Your task to perform on an android device: Open Google Maps Image 0: 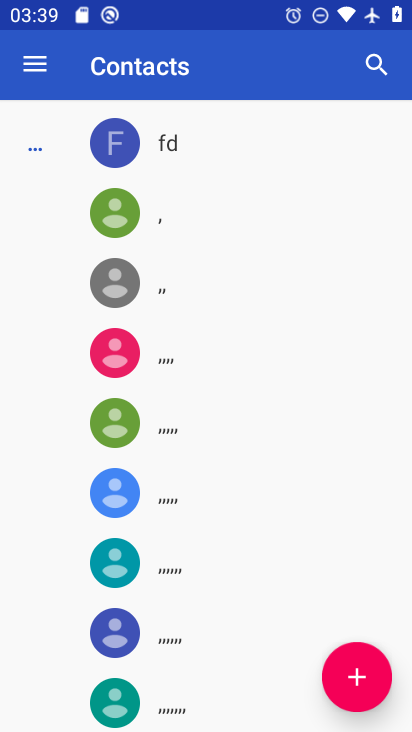
Step 0: press home button
Your task to perform on an android device: Open Google Maps Image 1: 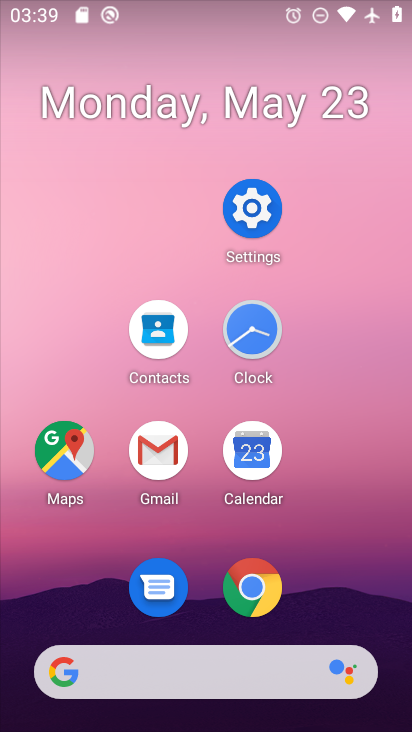
Step 1: click (73, 457)
Your task to perform on an android device: Open Google Maps Image 2: 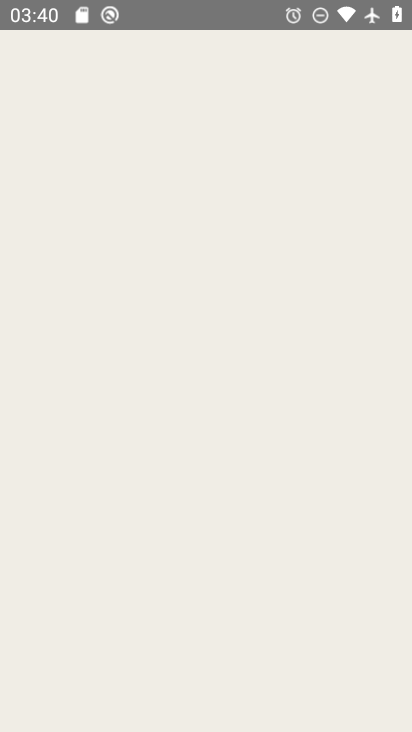
Step 2: task complete